Your task to perform on an android device: Open Android settings Image 0: 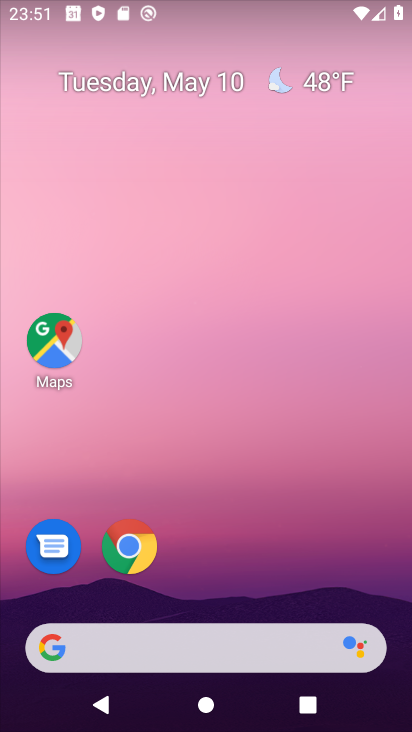
Step 0: drag from (244, 581) to (243, 149)
Your task to perform on an android device: Open Android settings Image 1: 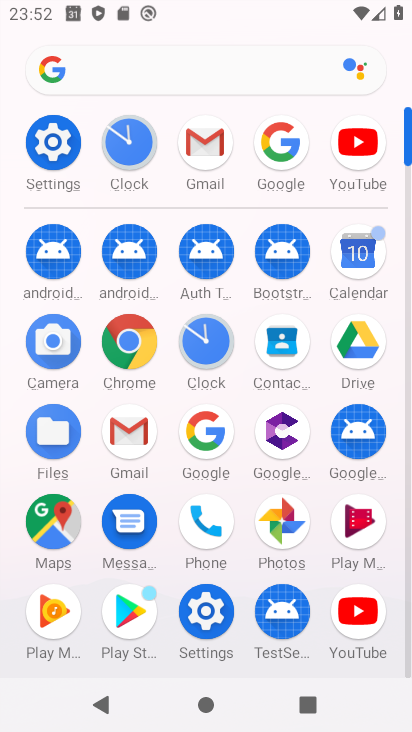
Step 1: click (65, 143)
Your task to perform on an android device: Open Android settings Image 2: 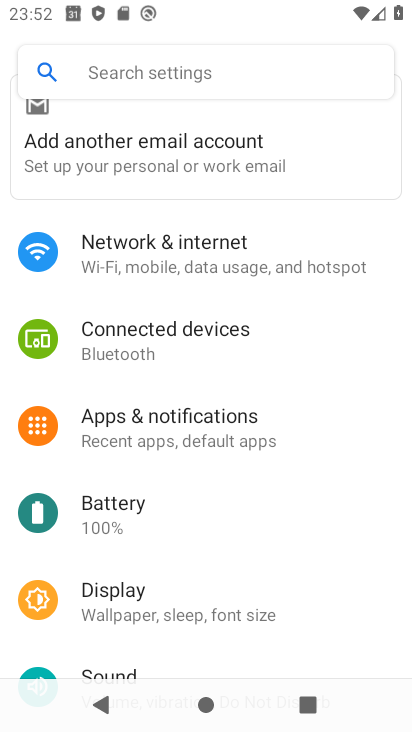
Step 2: task complete